Your task to perform on an android device: Go to Google maps Image 0: 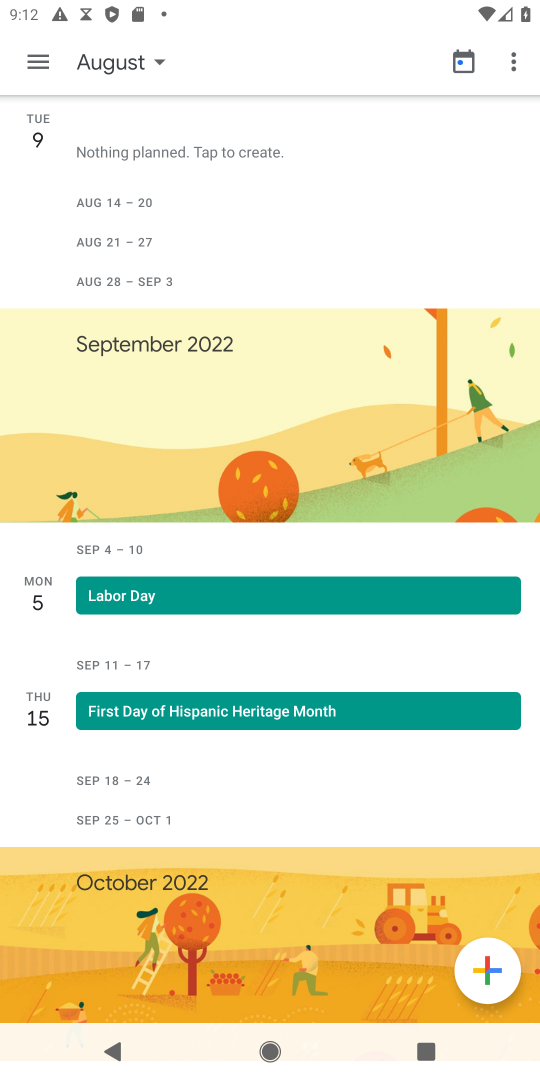
Step 0: press home button
Your task to perform on an android device: Go to Google maps Image 1: 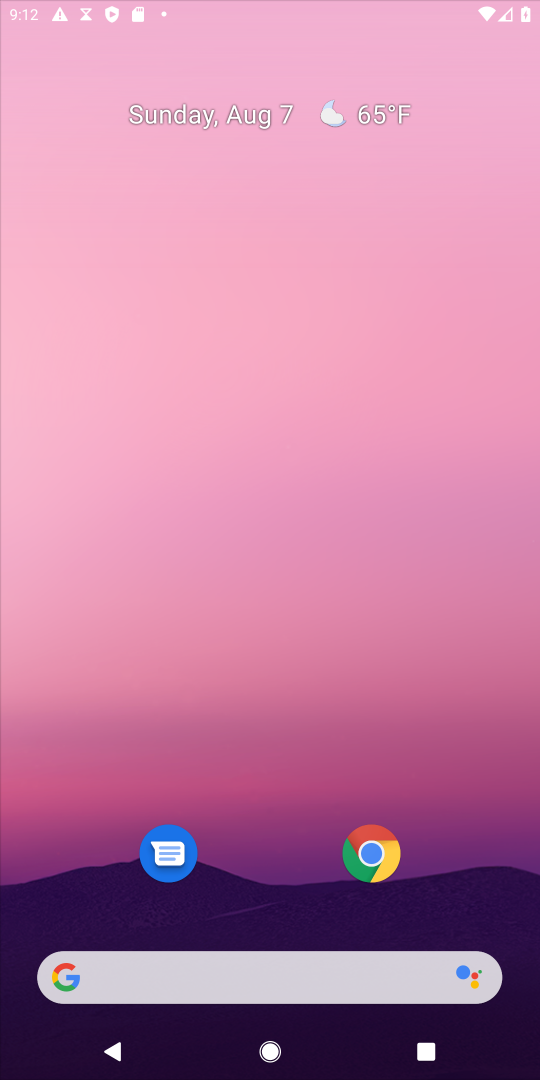
Step 1: drag from (175, 1005) to (267, 323)
Your task to perform on an android device: Go to Google maps Image 2: 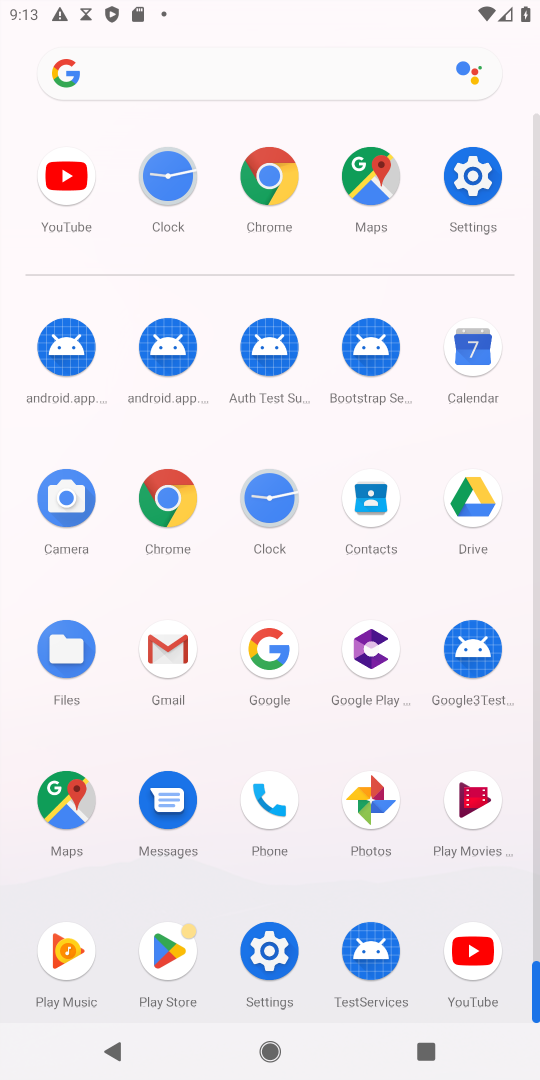
Step 2: click (76, 788)
Your task to perform on an android device: Go to Google maps Image 3: 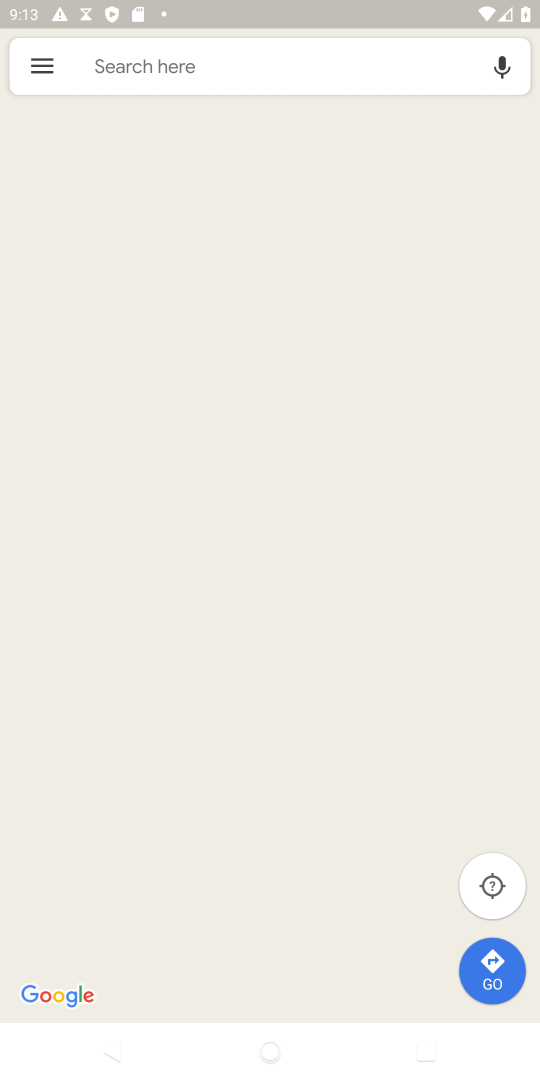
Step 3: task complete